Your task to perform on an android device: turn vacation reply on in the gmail app Image 0: 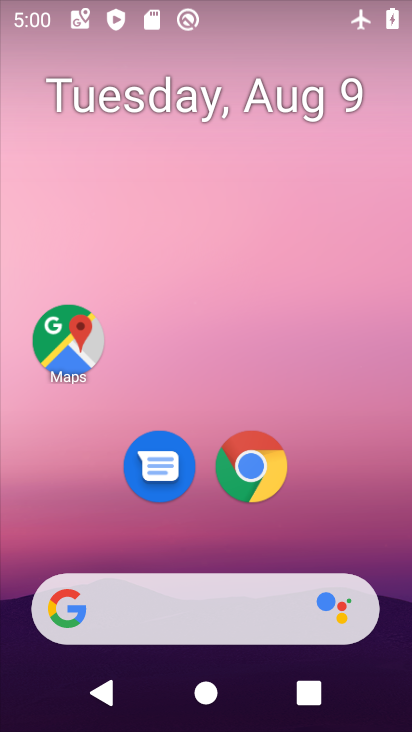
Step 0: drag from (198, 495) to (258, 122)
Your task to perform on an android device: turn vacation reply on in the gmail app Image 1: 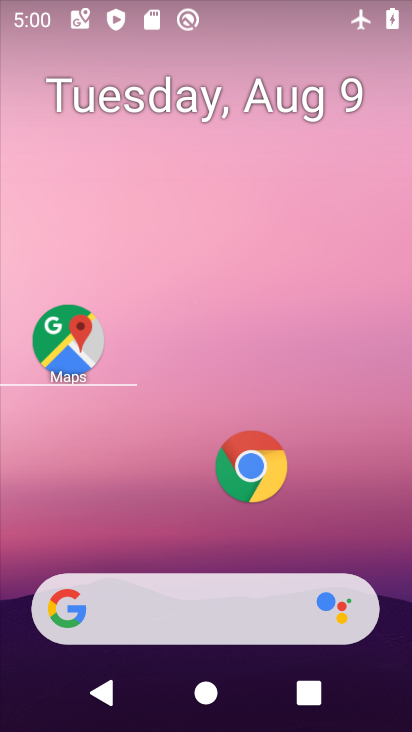
Step 1: drag from (212, 434) to (276, 169)
Your task to perform on an android device: turn vacation reply on in the gmail app Image 2: 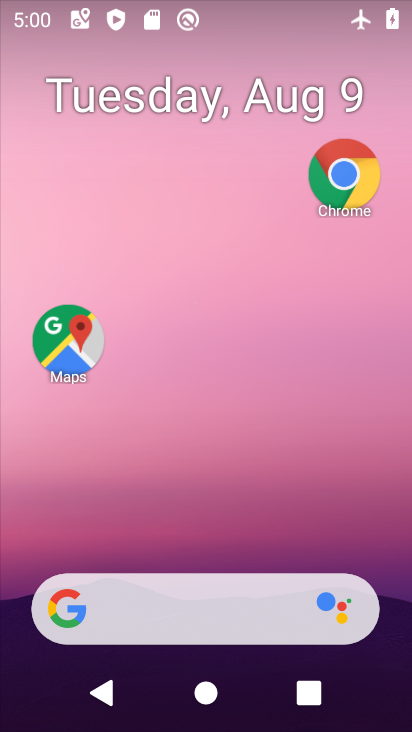
Step 2: drag from (242, 534) to (220, 128)
Your task to perform on an android device: turn vacation reply on in the gmail app Image 3: 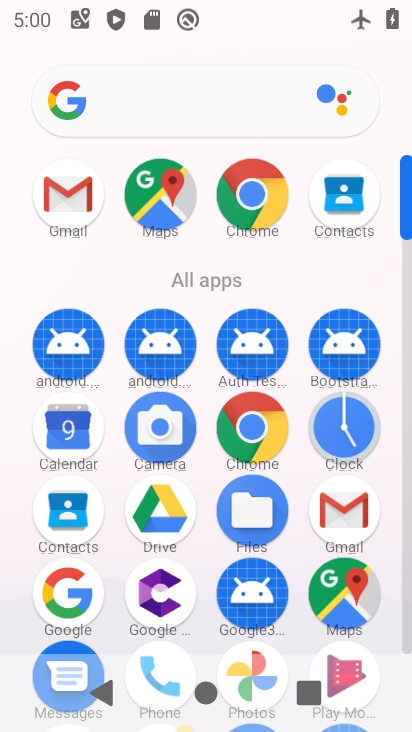
Step 3: click (329, 511)
Your task to perform on an android device: turn vacation reply on in the gmail app Image 4: 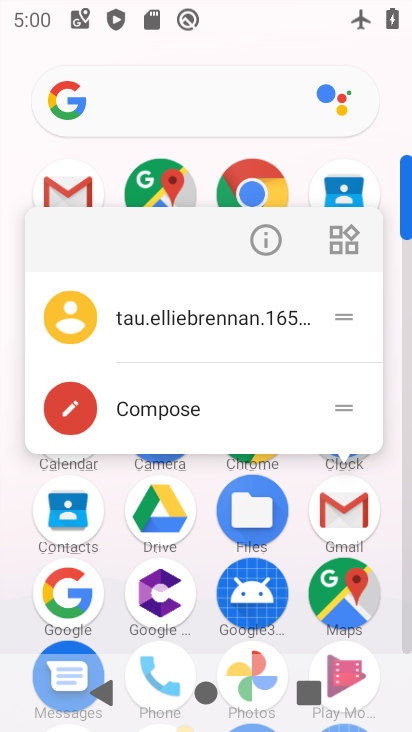
Step 4: click (259, 247)
Your task to perform on an android device: turn vacation reply on in the gmail app Image 5: 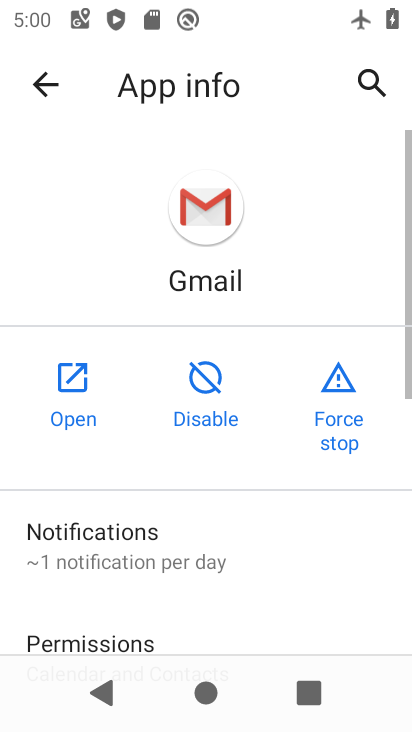
Step 5: click (56, 389)
Your task to perform on an android device: turn vacation reply on in the gmail app Image 6: 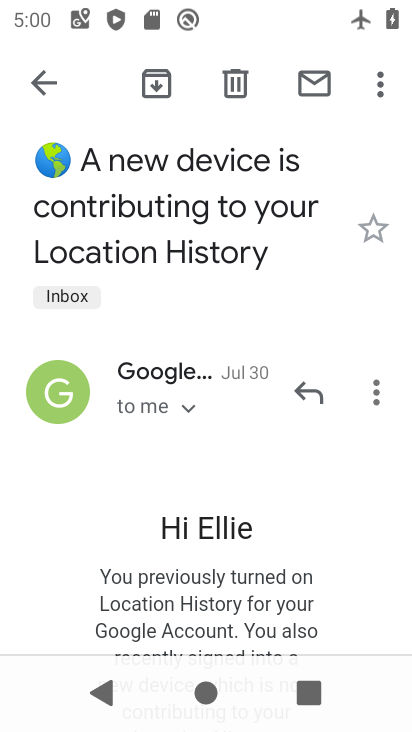
Step 6: click (35, 75)
Your task to perform on an android device: turn vacation reply on in the gmail app Image 7: 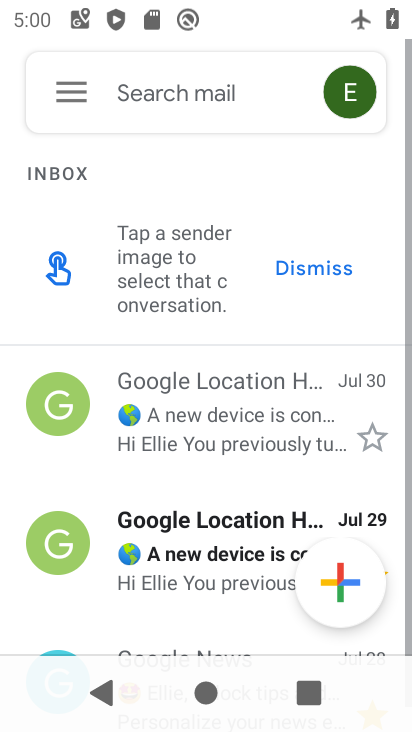
Step 7: drag from (231, 567) to (221, 309)
Your task to perform on an android device: turn vacation reply on in the gmail app Image 8: 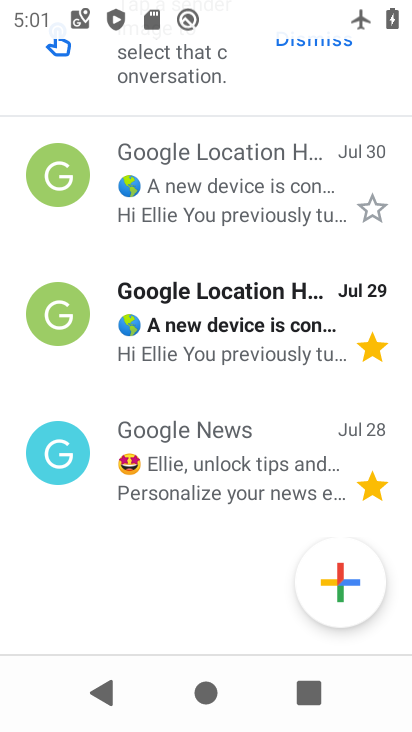
Step 8: drag from (121, 88) to (190, 559)
Your task to perform on an android device: turn vacation reply on in the gmail app Image 9: 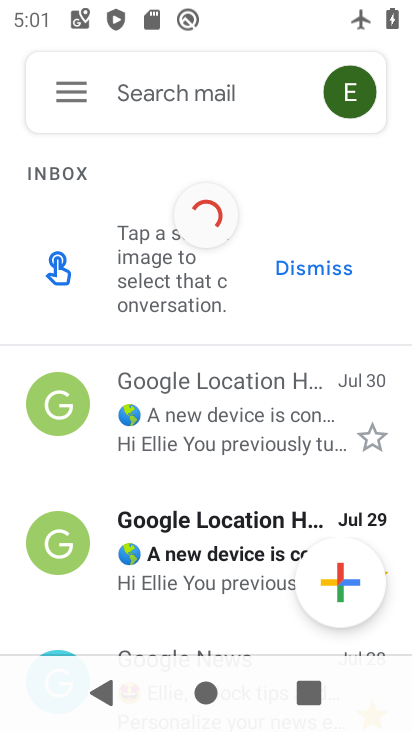
Step 9: click (63, 82)
Your task to perform on an android device: turn vacation reply on in the gmail app Image 10: 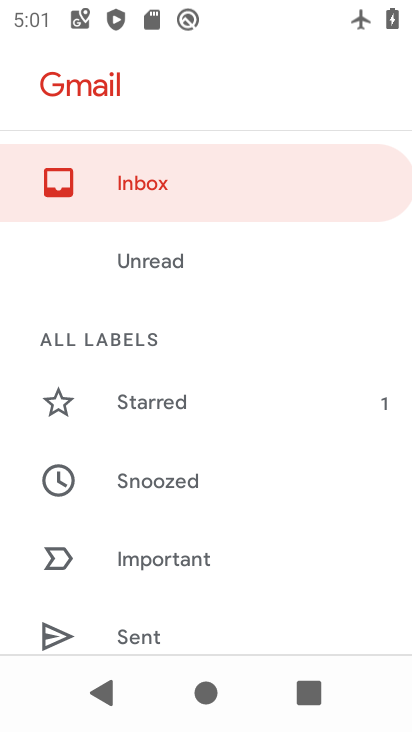
Step 10: drag from (130, 572) to (162, 96)
Your task to perform on an android device: turn vacation reply on in the gmail app Image 11: 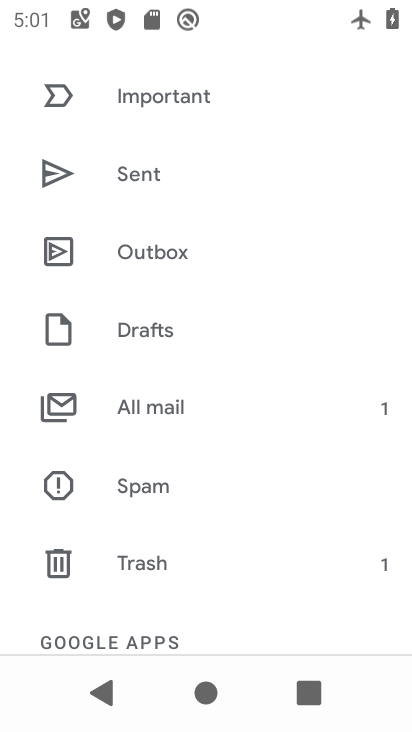
Step 11: drag from (169, 571) to (240, 214)
Your task to perform on an android device: turn vacation reply on in the gmail app Image 12: 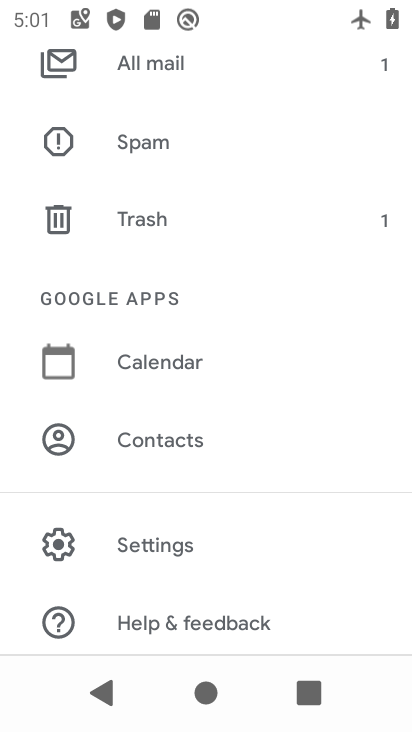
Step 12: click (161, 539)
Your task to perform on an android device: turn vacation reply on in the gmail app Image 13: 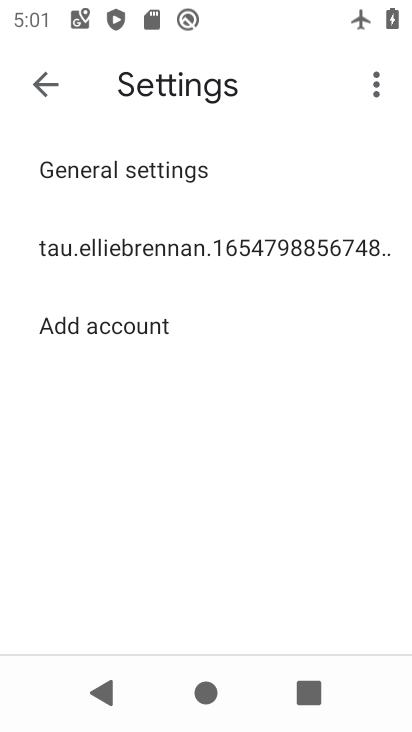
Step 13: drag from (136, 500) to (205, 196)
Your task to perform on an android device: turn vacation reply on in the gmail app Image 14: 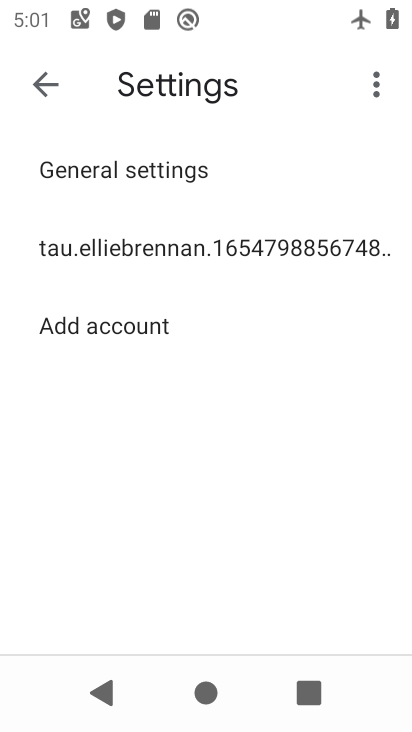
Step 14: click (154, 247)
Your task to perform on an android device: turn vacation reply on in the gmail app Image 15: 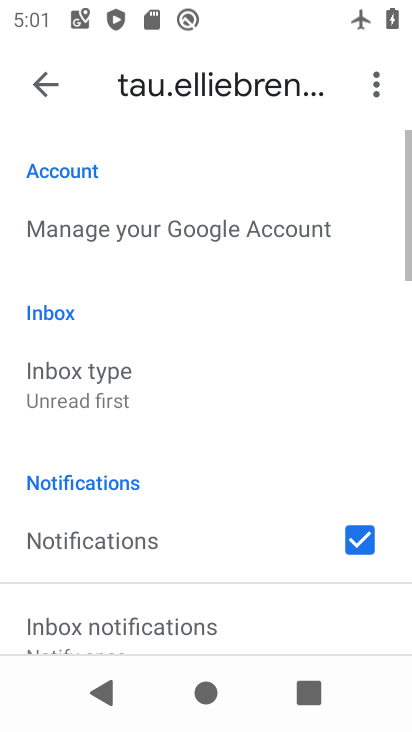
Step 15: drag from (132, 533) to (199, 219)
Your task to perform on an android device: turn vacation reply on in the gmail app Image 16: 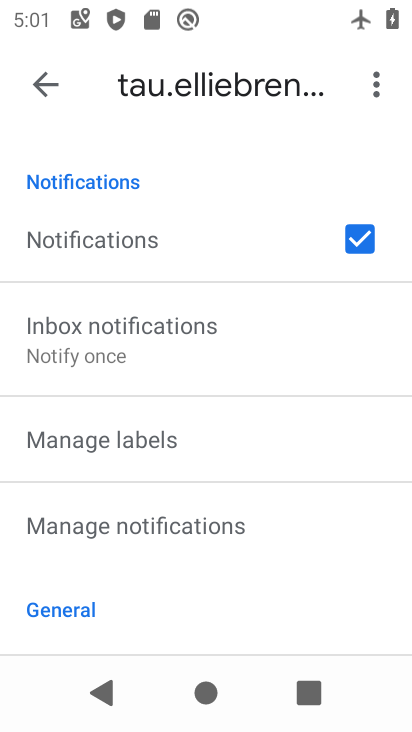
Step 16: drag from (127, 548) to (218, 176)
Your task to perform on an android device: turn vacation reply on in the gmail app Image 17: 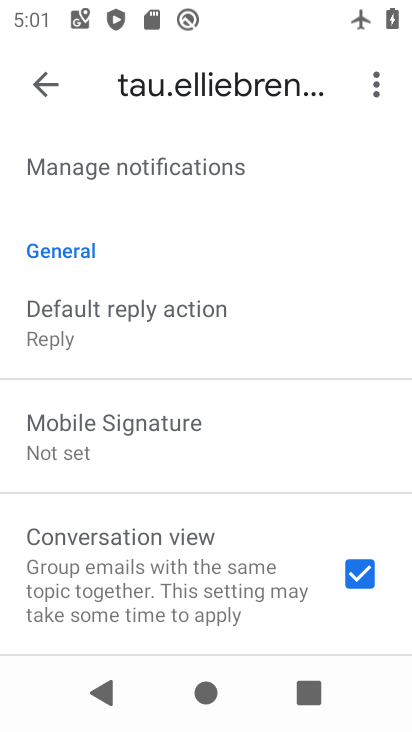
Step 17: drag from (187, 587) to (230, 43)
Your task to perform on an android device: turn vacation reply on in the gmail app Image 18: 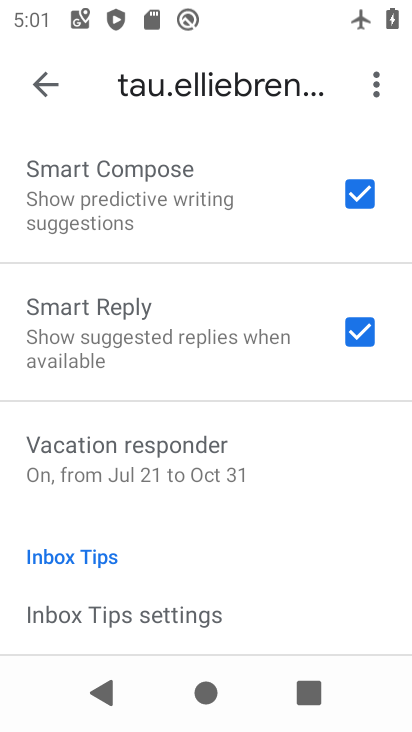
Step 18: click (144, 465)
Your task to perform on an android device: turn vacation reply on in the gmail app Image 19: 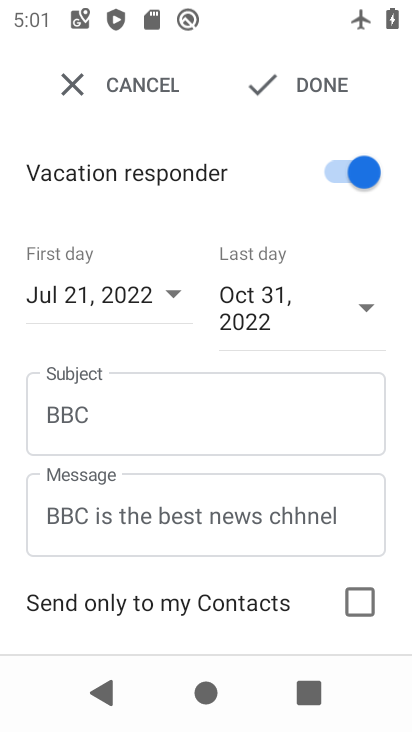
Step 19: click (313, 83)
Your task to perform on an android device: turn vacation reply on in the gmail app Image 20: 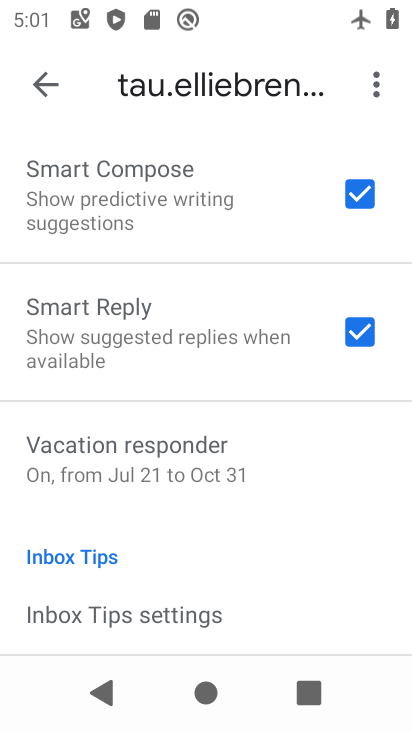
Step 20: task complete